Your task to perform on an android device: turn vacation reply on in the gmail app Image 0: 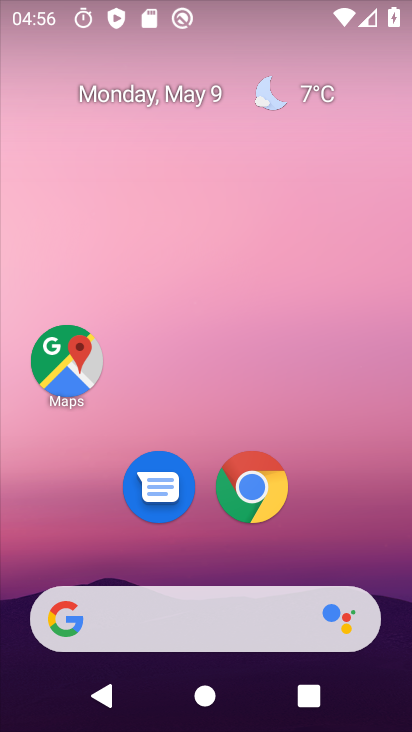
Step 0: drag from (194, 521) to (211, 5)
Your task to perform on an android device: turn vacation reply on in the gmail app Image 1: 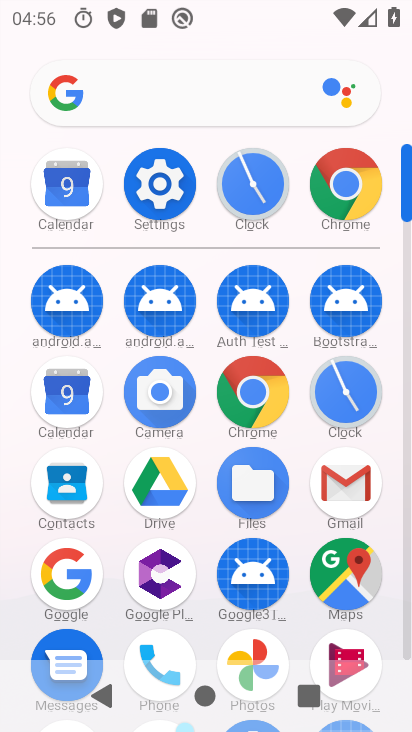
Step 1: click (348, 489)
Your task to perform on an android device: turn vacation reply on in the gmail app Image 2: 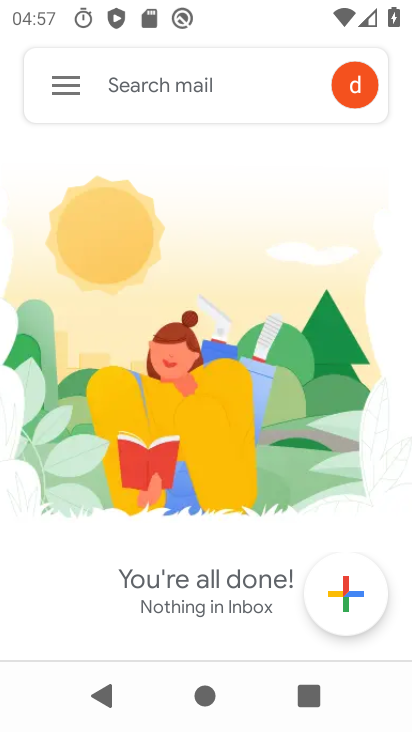
Step 2: click (51, 83)
Your task to perform on an android device: turn vacation reply on in the gmail app Image 3: 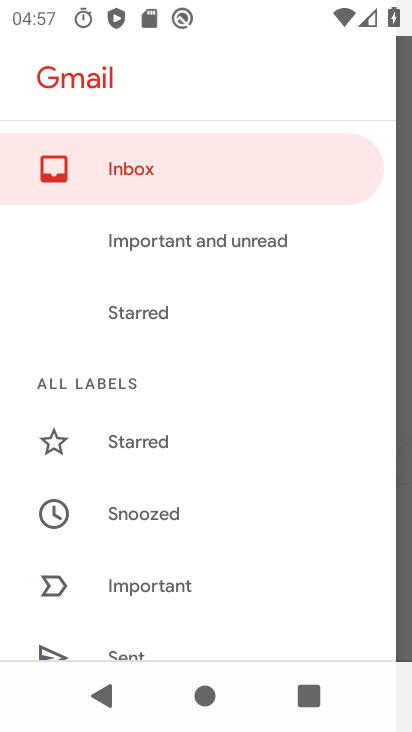
Step 3: drag from (195, 571) to (185, 50)
Your task to perform on an android device: turn vacation reply on in the gmail app Image 4: 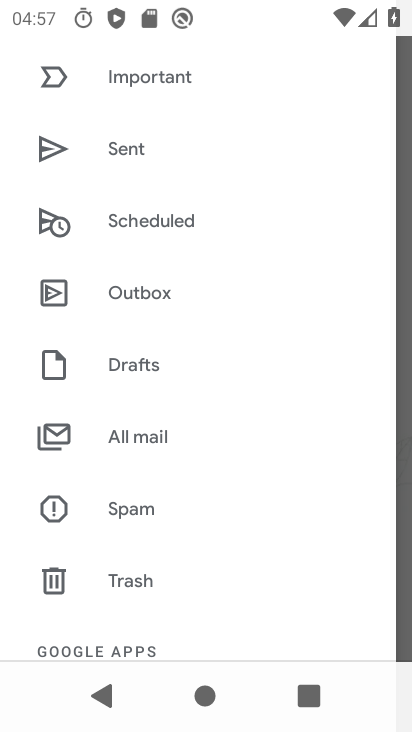
Step 4: drag from (208, 584) to (189, 288)
Your task to perform on an android device: turn vacation reply on in the gmail app Image 5: 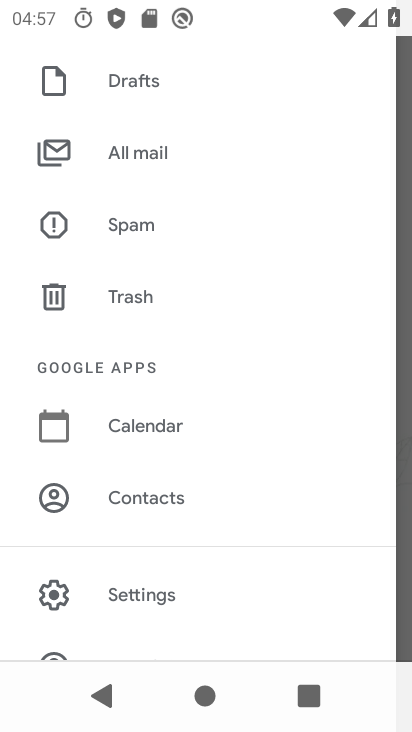
Step 5: click (152, 590)
Your task to perform on an android device: turn vacation reply on in the gmail app Image 6: 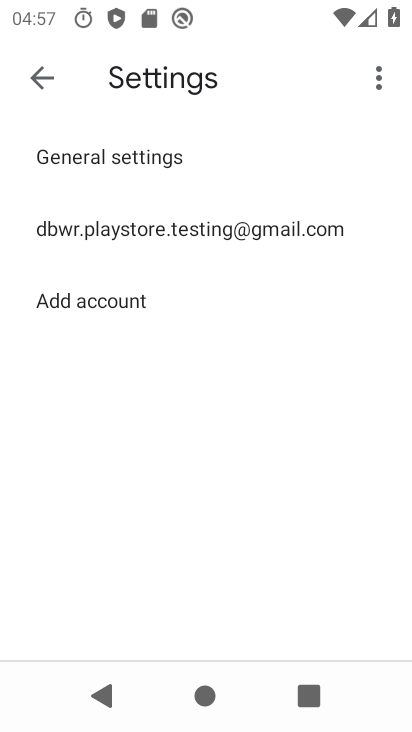
Step 6: click (159, 234)
Your task to perform on an android device: turn vacation reply on in the gmail app Image 7: 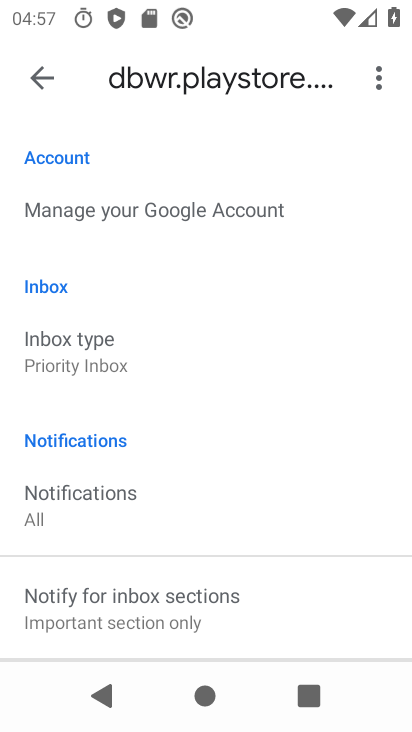
Step 7: drag from (166, 607) to (195, 214)
Your task to perform on an android device: turn vacation reply on in the gmail app Image 8: 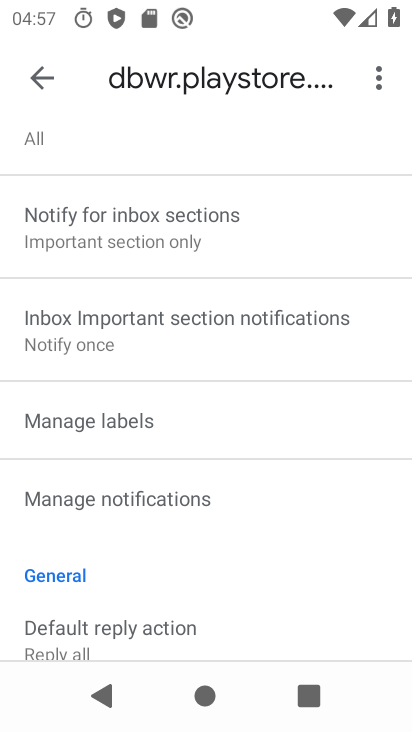
Step 8: drag from (176, 599) to (169, 194)
Your task to perform on an android device: turn vacation reply on in the gmail app Image 9: 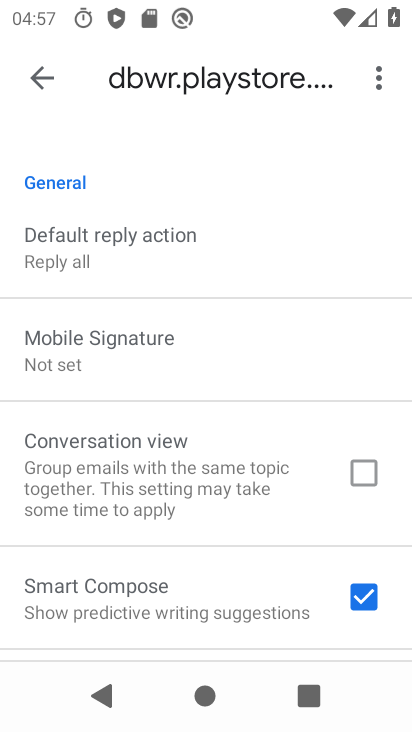
Step 9: drag from (198, 546) to (186, 103)
Your task to perform on an android device: turn vacation reply on in the gmail app Image 10: 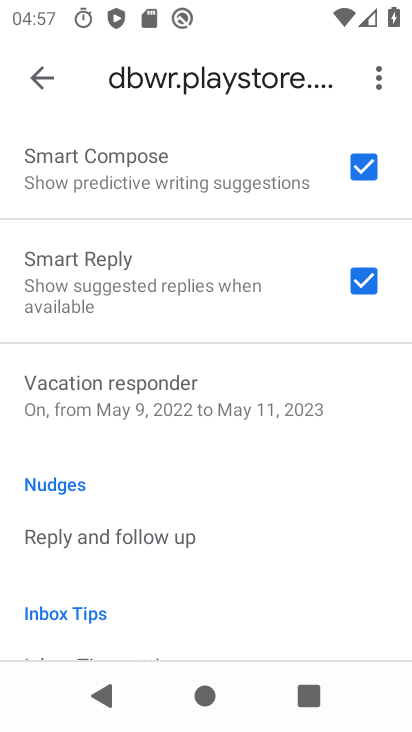
Step 10: click (179, 403)
Your task to perform on an android device: turn vacation reply on in the gmail app Image 11: 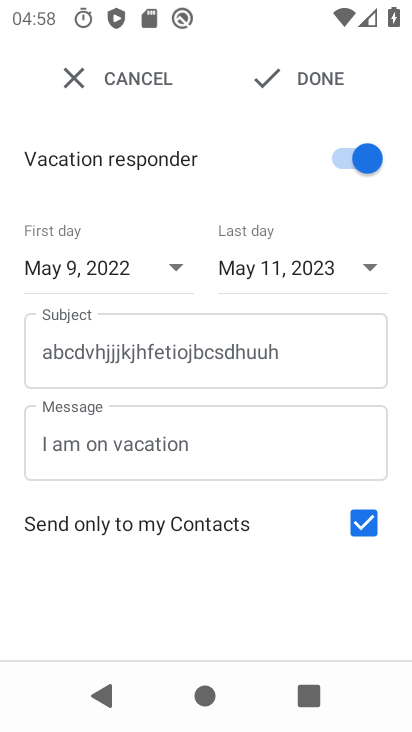
Step 11: task complete